Your task to perform on an android device: change the clock display to digital Image 0: 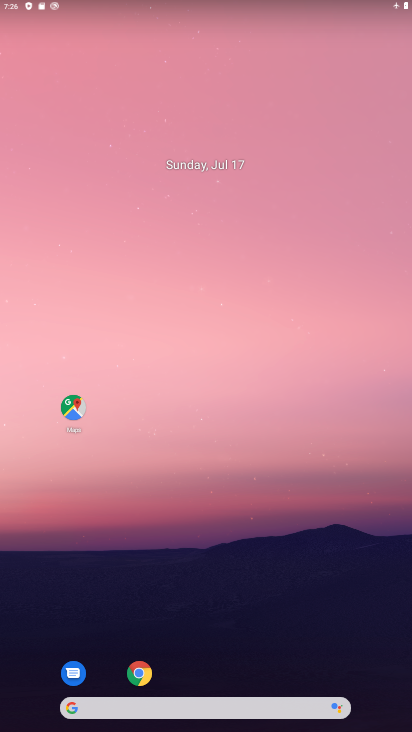
Step 0: drag from (167, 604) to (70, 95)
Your task to perform on an android device: change the clock display to digital Image 1: 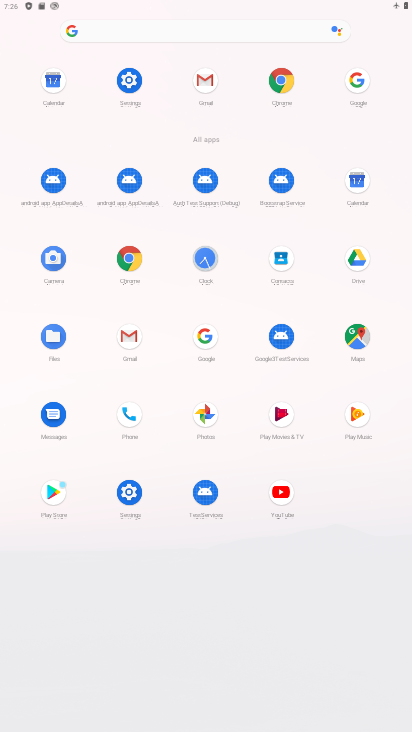
Step 1: click (203, 263)
Your task to perform on an android device: change the clock display to digital Image 2: 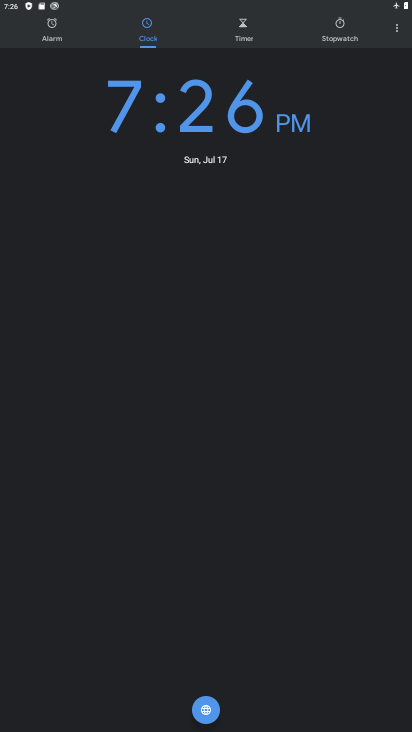
Step 2: click (390, 27)
Your task to perform on an android device: change the clock display to digital Image 3: 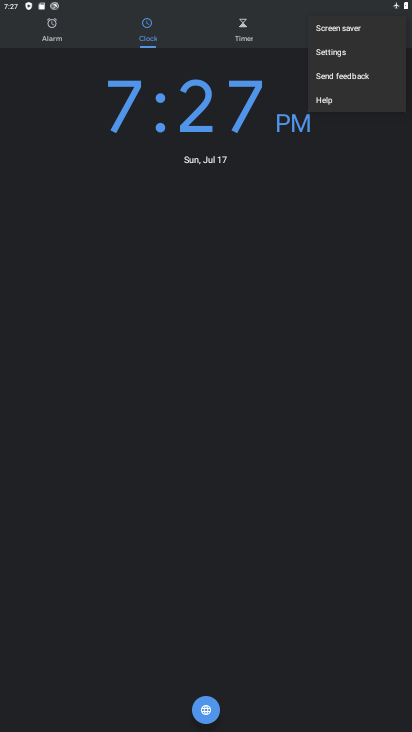
Step 3: click (335, 54)
Your task to perform on an android device: change the clock display to digital Image 4: 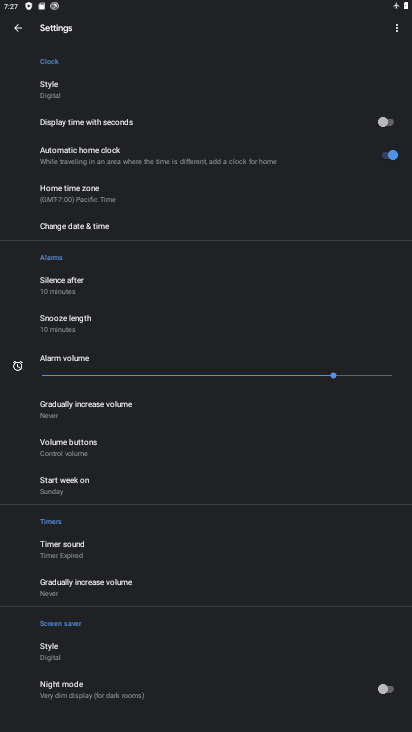
Step 4: click (45, 79)
Your task to perform on an android device: change the clock display to digital Image 5: 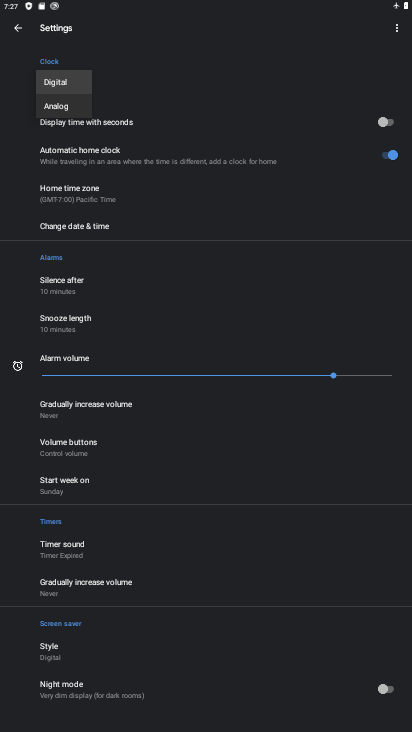
Step 5: click (63, 87)
Your task to perform on an android device: change the clock display to digital Image 6: 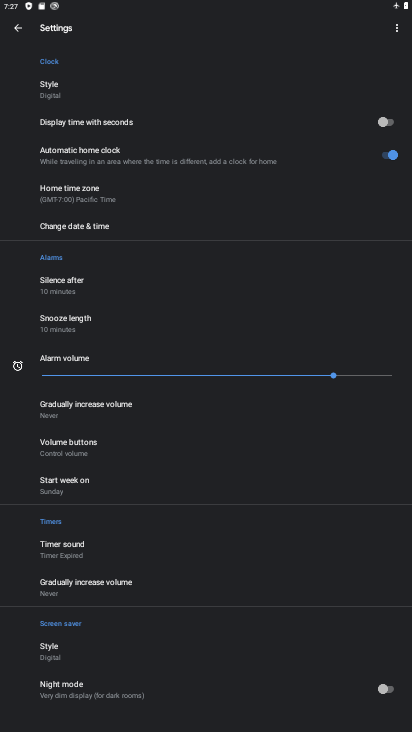
Step 6: task complete